Your task to perform on an android device: add a label to a message in the gmail app Image 0: 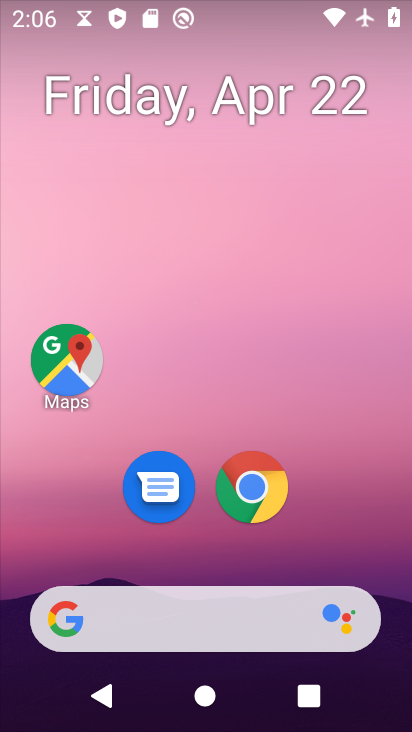
Step 0: drag from (165, 615) to (301, 105)
Your task to perform on an android device: add a label to a message in the gmail app Image 1: 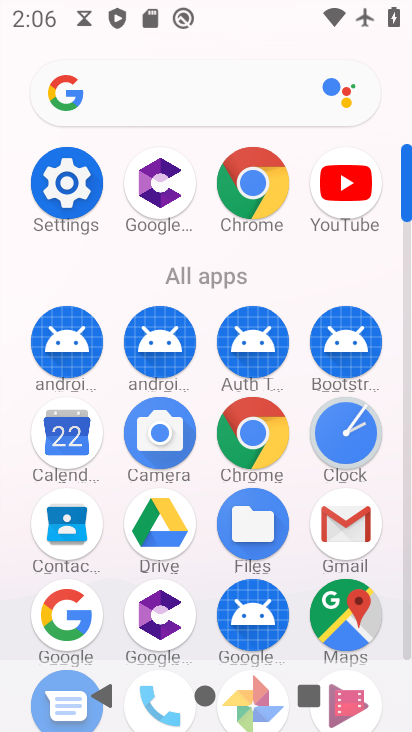
Step 1: click (356, 536)
Your task to perform on an android device: add a label to a message in the gmail app Image 2: 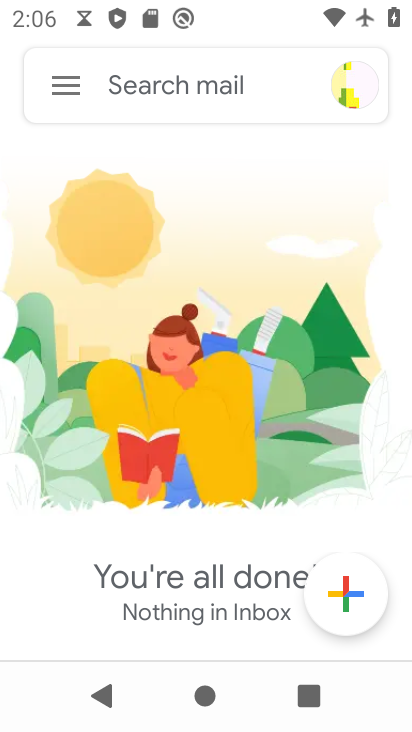
Step 2: task complete